Your task to perform on an android device: check data usage Image 0: 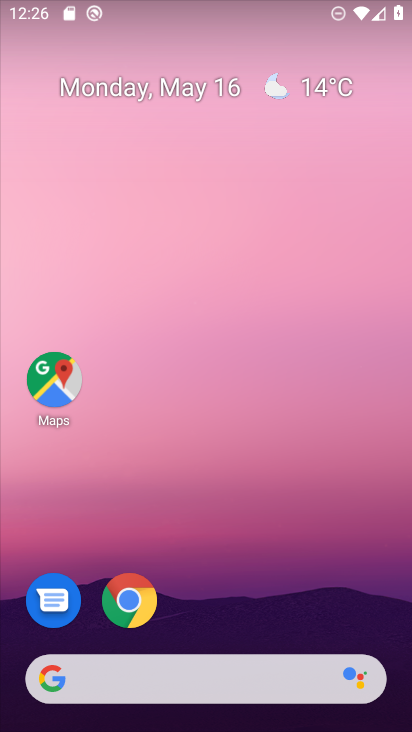
Step 0: press home button
Your task to perform on an android device: check data usage Image 1: 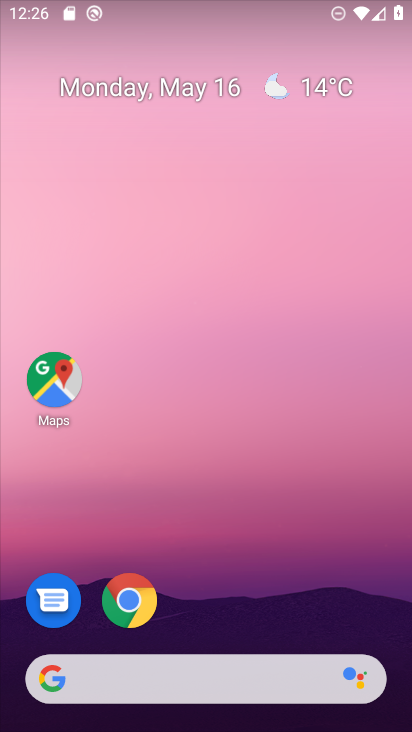
Step 1: drag from (221, 626) to (259, 73)
Your task to perform on an android device: check data usage Image 2: 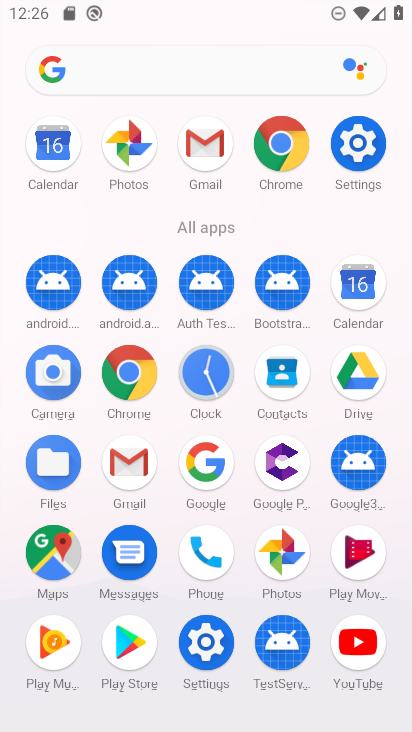
Step 2: click (356, 139)
Your task to perform on an android device: check data usage Image 3: 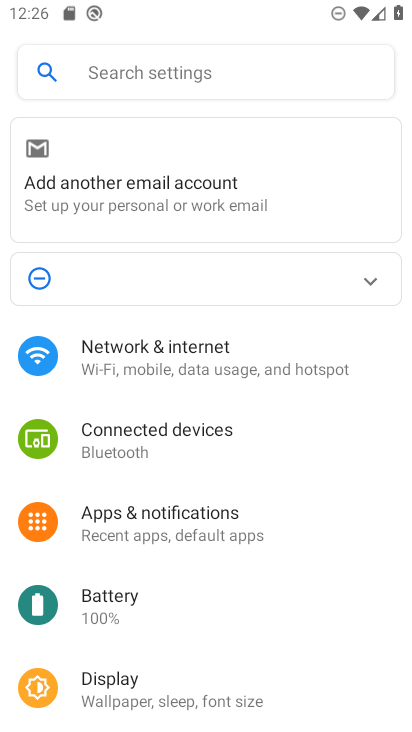
Step 3: click (250, 347)
Your task to perform on an android device: check data usage Image 4: 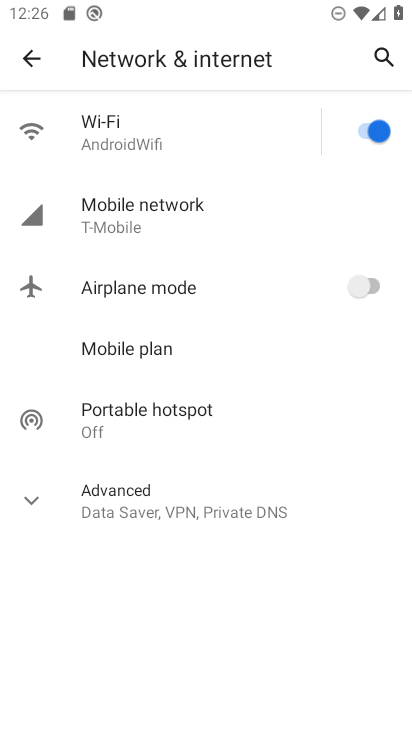
Step 4: click (170, 220)
Your task to perform on an android device: check data usage Image 5: 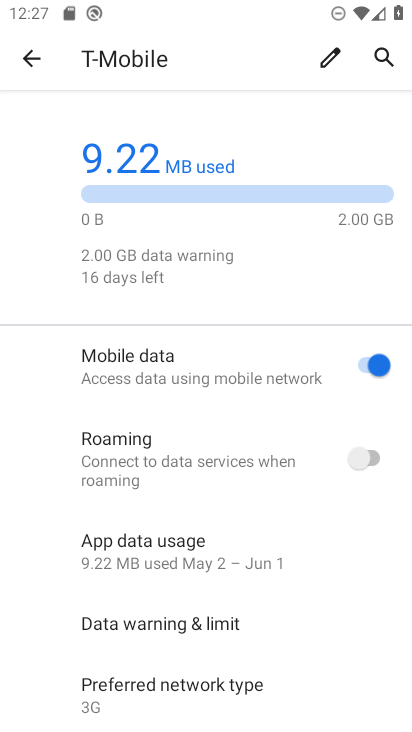
Step 5: click (230, 540)
Your task to perform on an android device: check data usage Image 6: 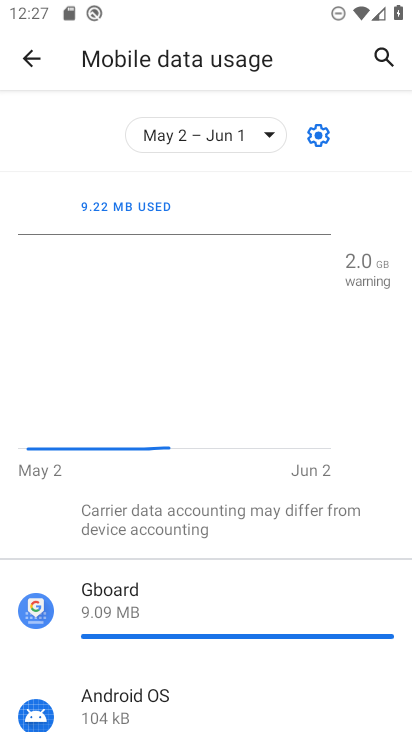
Step 6: task complete